Your task to perform on an android device: What is the news today? Image 0: 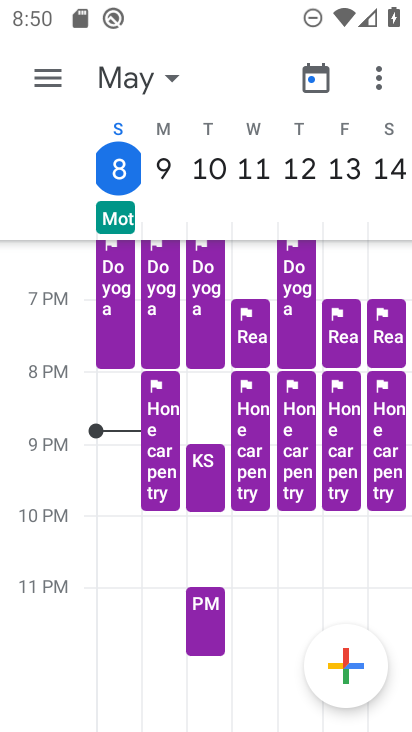
Step 0: press home button
Your task to perform on an android device: What is the news today? Image 1: 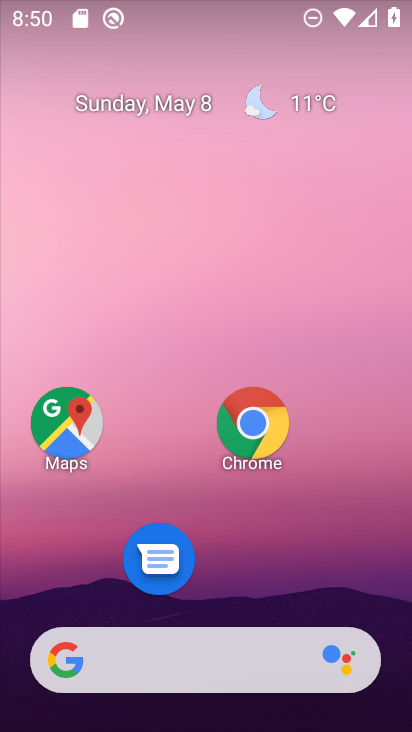
Step 1: task complete